Your task to perform on an android device: Open notification settings Image 0: 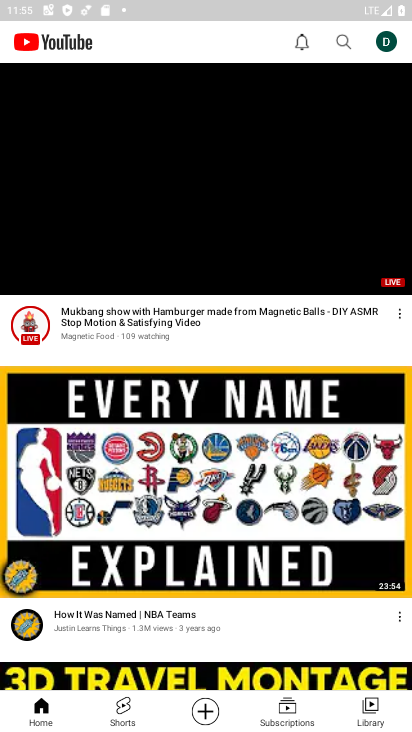
Step 0: press home button
Your task to perform on an android device: Open notification settings Image 1: 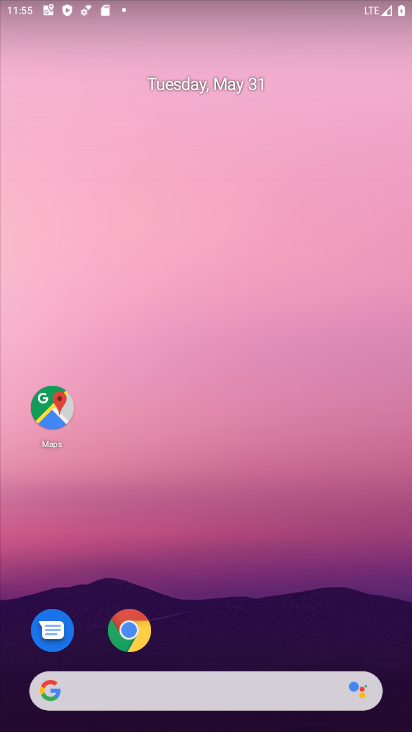
Step 1: drag from (287, 609) to (285, 124)
Your task to perform on an android device: Open notification settings Image 2: 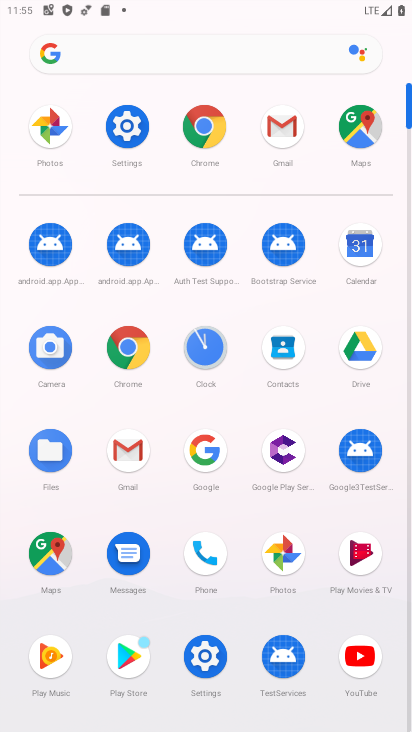
Step 2: click (126, 127)
Your task to perform on an android device: Open notification settings Image 3: 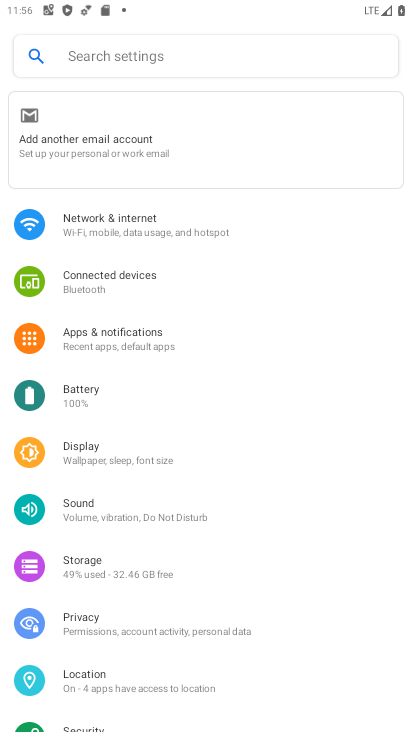
Step 3: click (96, 341)
Your task to perform on an android device: Open notification settings Image 4: 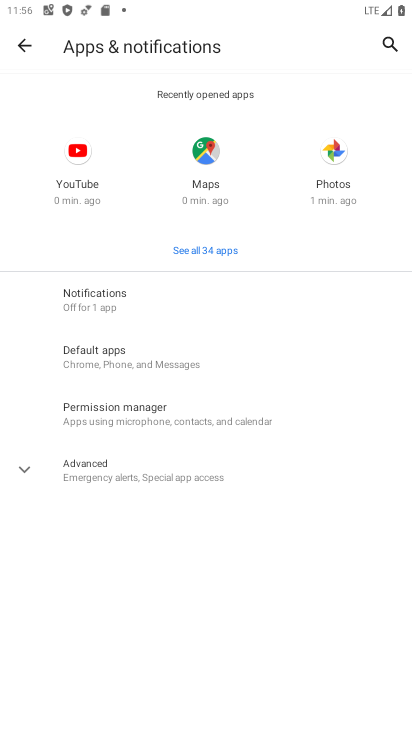
Step 4: task complete